Your task to perform on an android device: change timer sound Image 0: 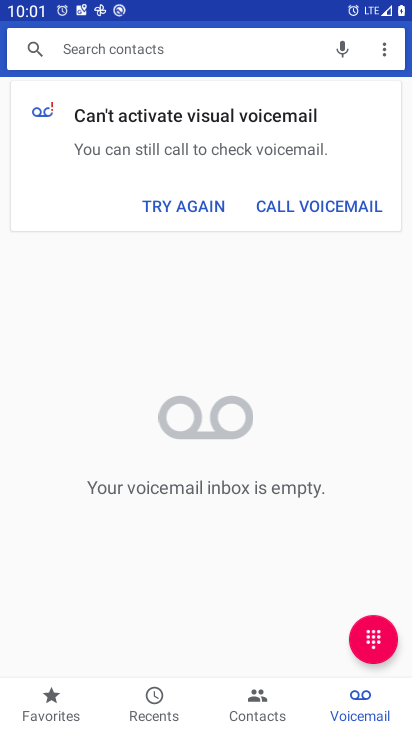
Step 0: press home button
Your task to perform on an android device: change timer sound Image 1: 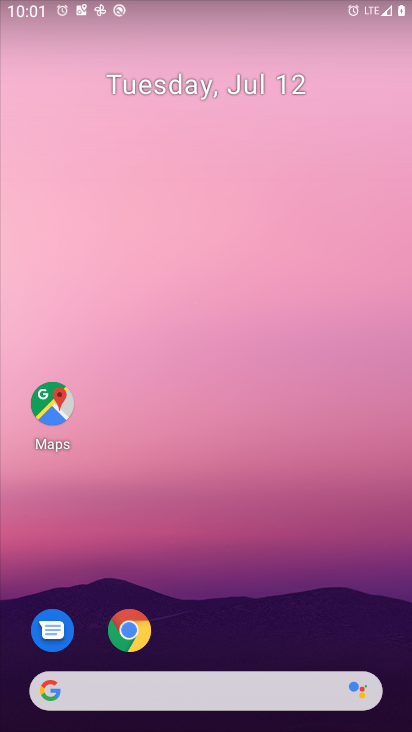
Step 1: drag from (271, 591) to (254, 129)
Your task to perform on an android device: change timer sound Image 2: 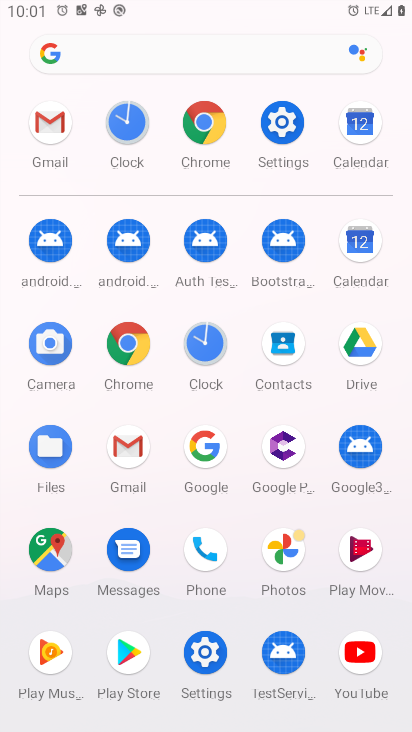
Step 2: click (209, 342)
Your task to perform on an android device: change timer sound Image 3: 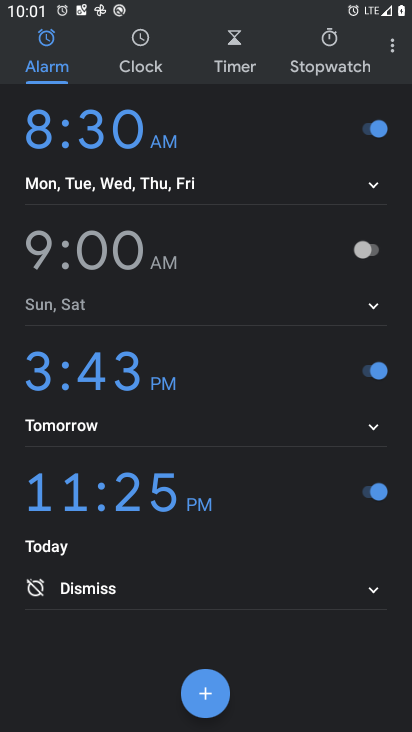
Step 3: click (394, 41)
Your task to perform on an android device: change timer sound Image 4: 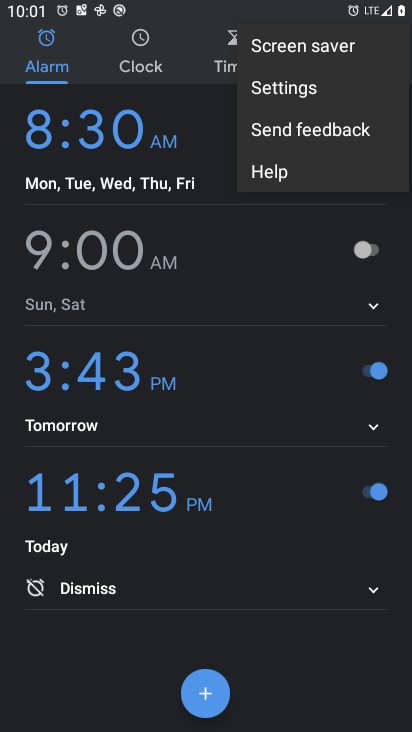
Step 4: click (262, 90)
Your task to perform on an android device: change timer sound Image 5: 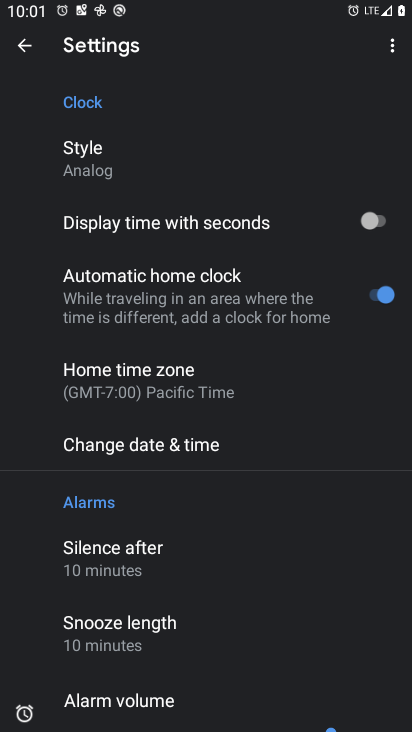
Step 5: drag from (214, 678) to (183, 234)
Your task to perform on an android device: change timer sound Image 6: 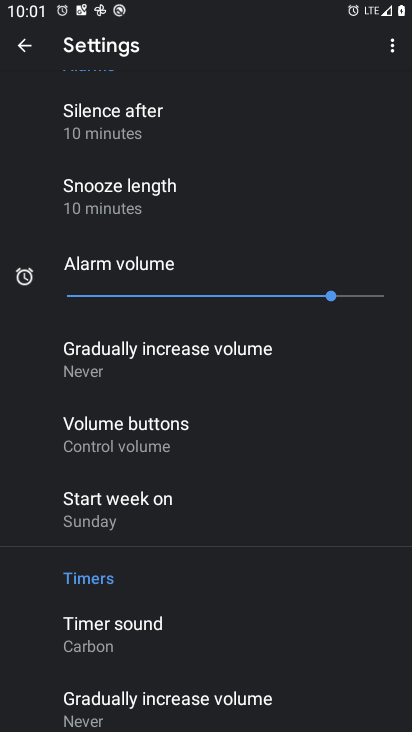
Step 6: click (182, 634)
Your task to perform on an android device: change timer sound Image 7: 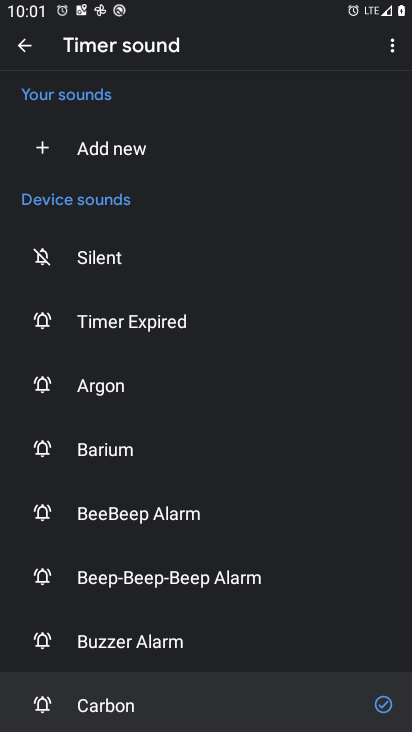
Step 7: click (73, 396)
Your task to perform on an android device: change timer sound Image 8: 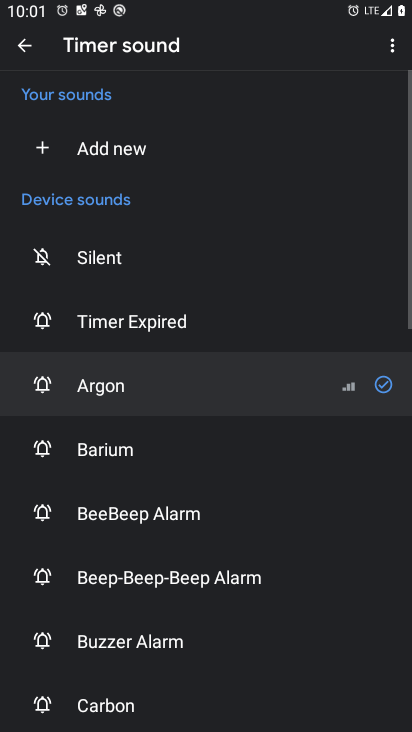
Step 8: task complete